Your task to perform on an android device: set the timer Image 0: 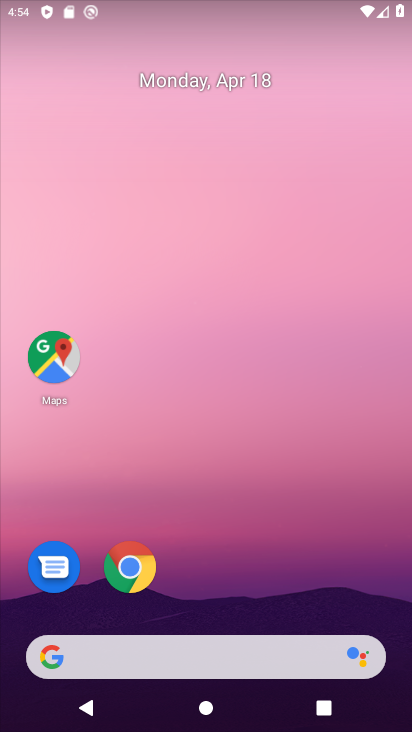
Step 0: drag from (237, 600) to (317, 43)
Your task to perform on an android device: set the timer Image 1: 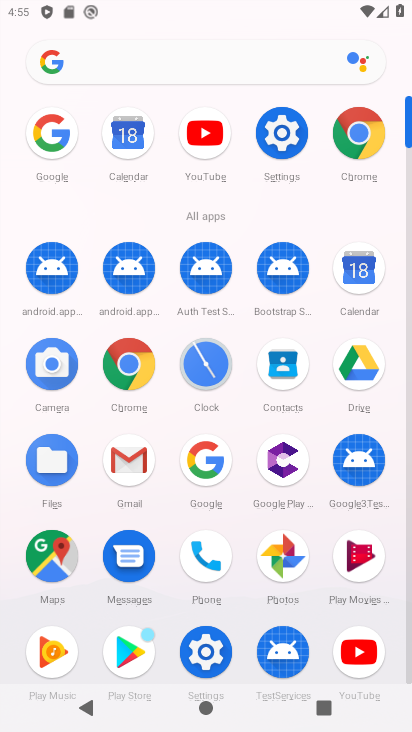
Step 1: click (196, 355)
Your task to perform on an android device: set the timer Image 2: 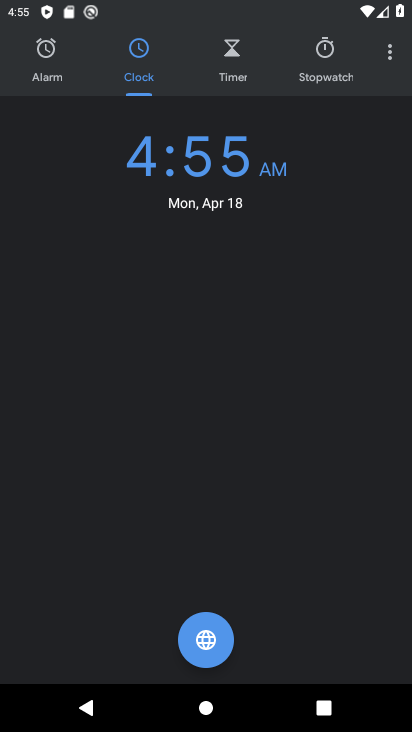
Step 2: click (231, 70)
Your task to perform on an android device: set the timer Image 3: 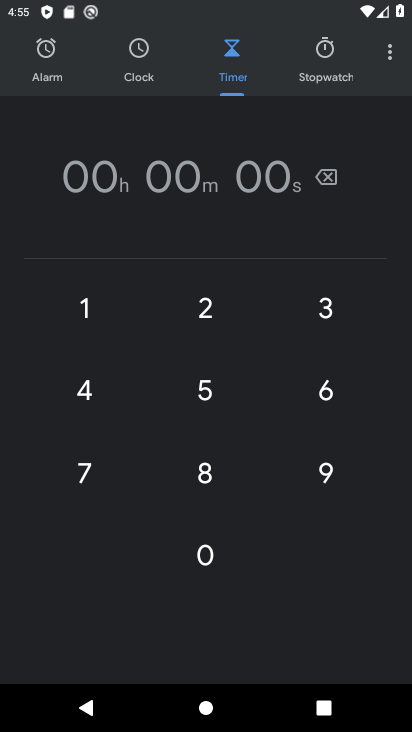
Step 3: click (77, 347)
Your task to perform on an android device: set the timer Image 4: 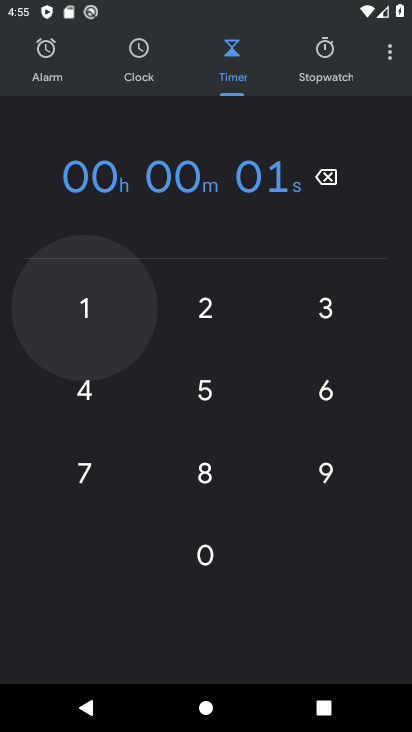
Step 4: click (188, 333)
Your task to perform on an android device: set the timer Image 5: 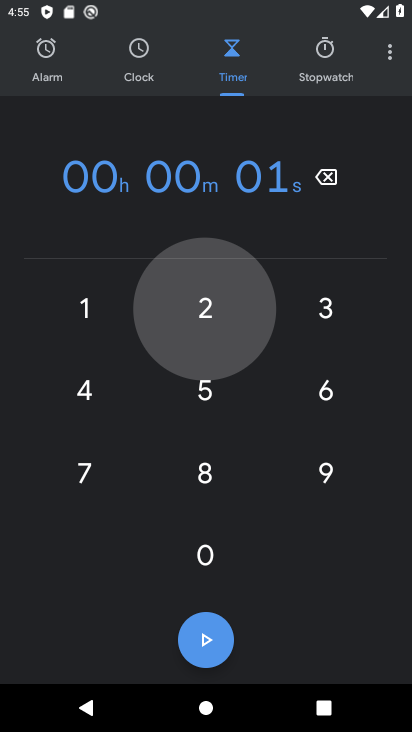
Step 5: click (274, 323)
Your task to perform on an android device: set the timer Image 6: 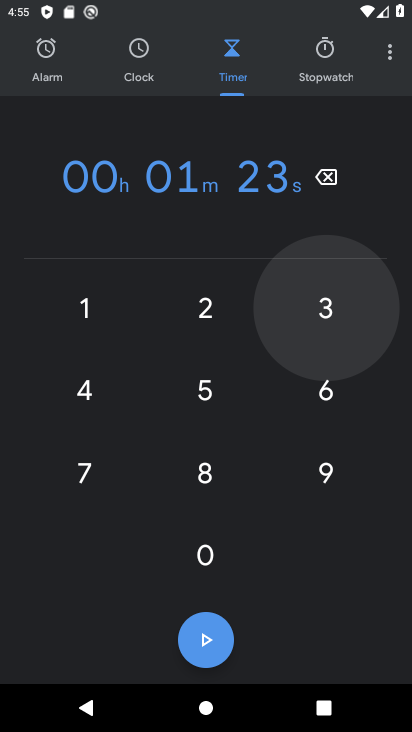
Step 6: click (83, 393)
Your task to perform on an android device: set the timer Image 7: 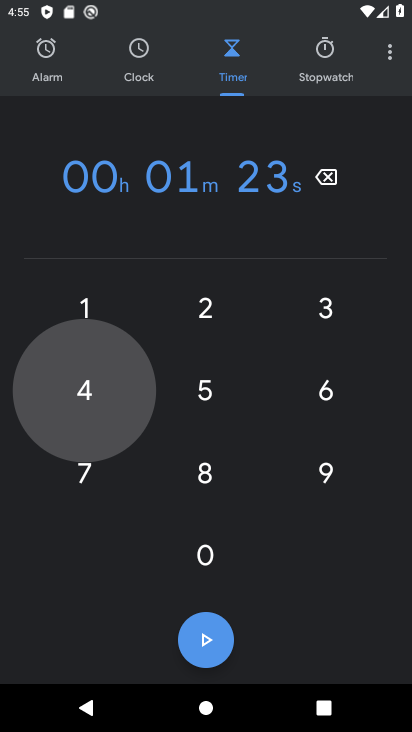
Step 7: drag from (219, 375) to (291, 404)
Your task to perform on an android device: set the timer Image 8: 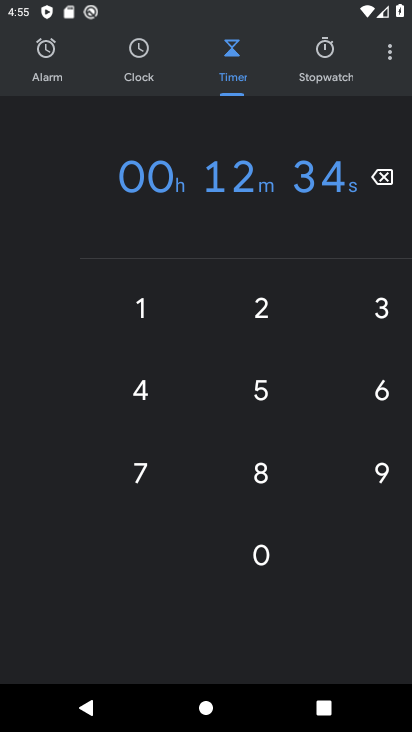
Step 8: click (134, 452)
Your task to perform on an android device: set the timer Image 9: 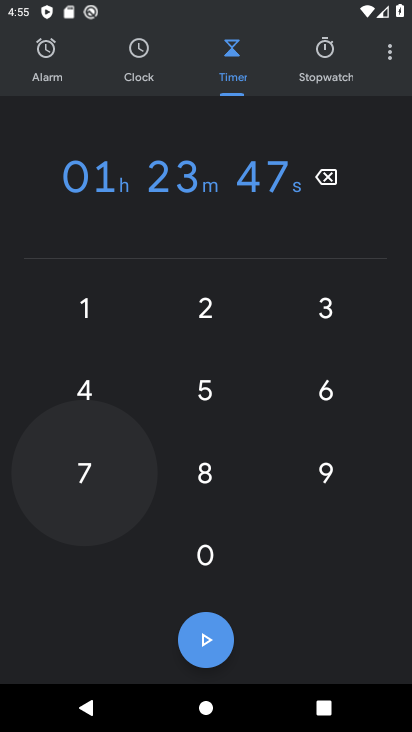
Step 9: click (208, 482)
Your task to perform on an android device: set the timer Image 10: 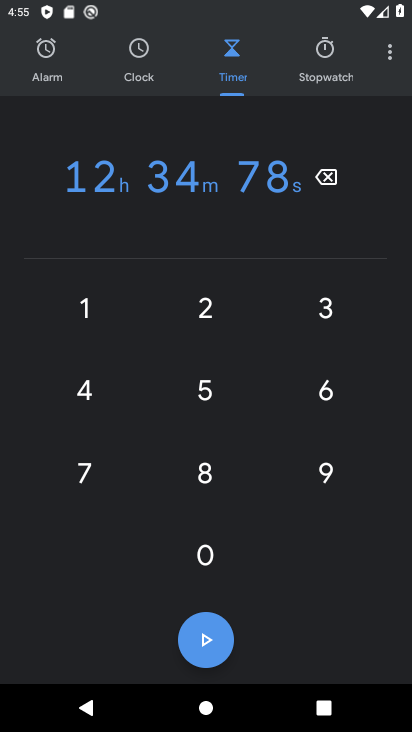
Step 10: click (197, 456)
Your task to perform on an android device: set the timer Image 11: 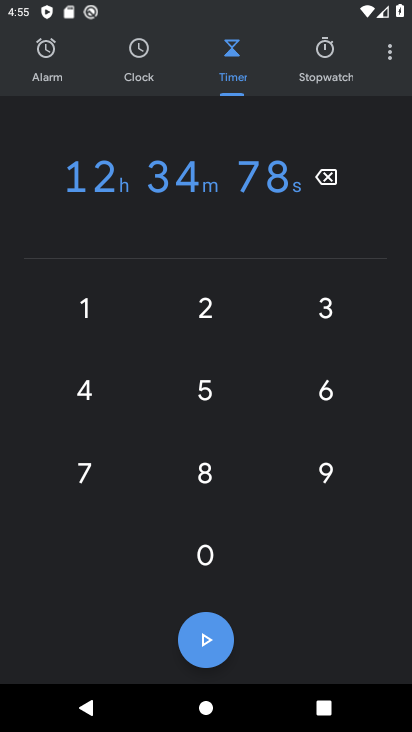
Step 11: click (189, 636)
Your task to perform on an android device: set the timer Image 12: 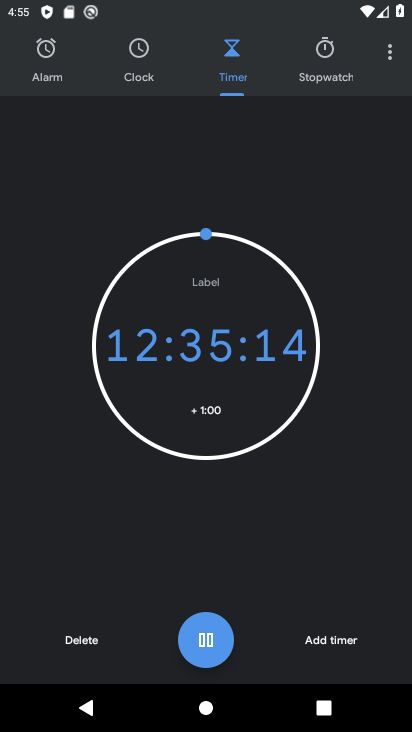
Step 12: task complete